Your task to perform on an android device: What's the weather today? Image 0: 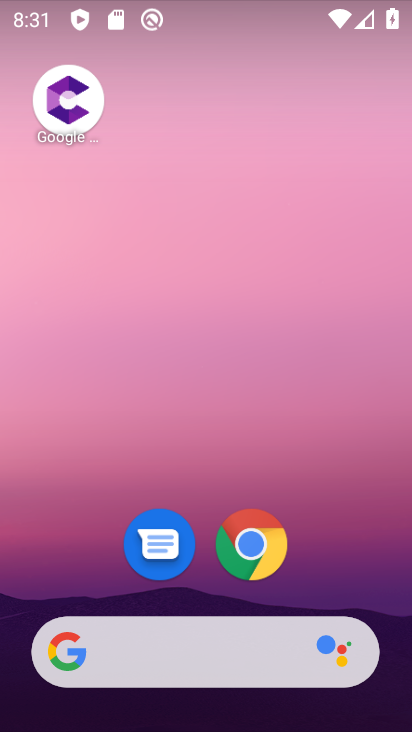
Step 0: drag from (350, 543) to (340, 239)
Your task to perform on an android device: What's the weather today? Image 1: 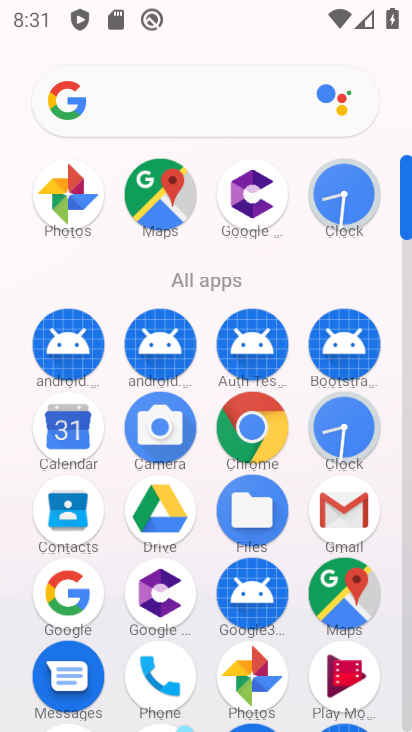
Step 1: click (244, 442)
Your task to perform on an android device: What's the weather today? Image 2: 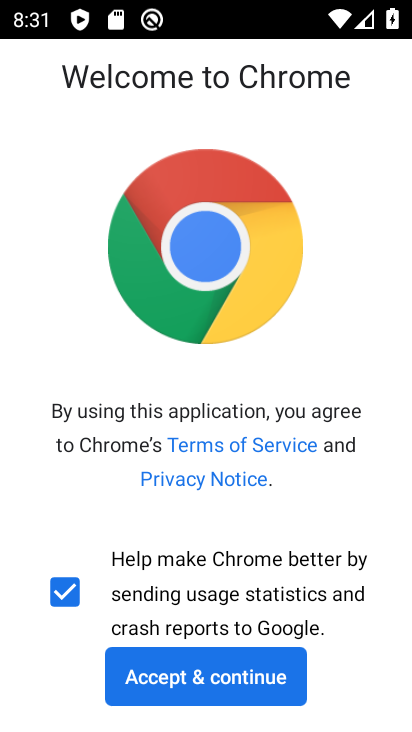
Step 2: click (253, 675)
Your task to perform on an android device: What's the weather today? Image 3: 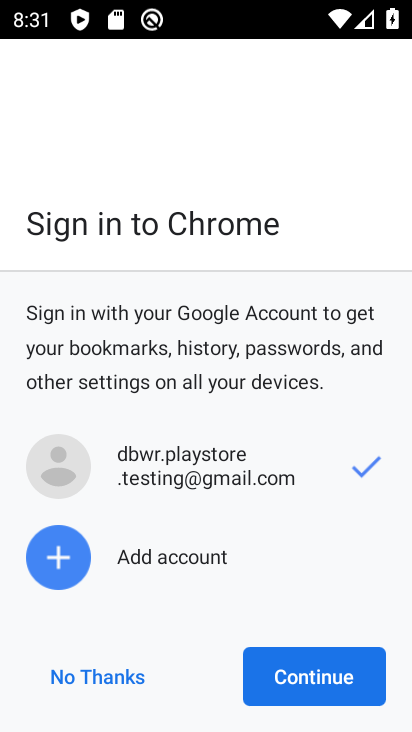
Step 3: click (252, 674)
Your task to perform on an android device: What's the weather today? Image 4: 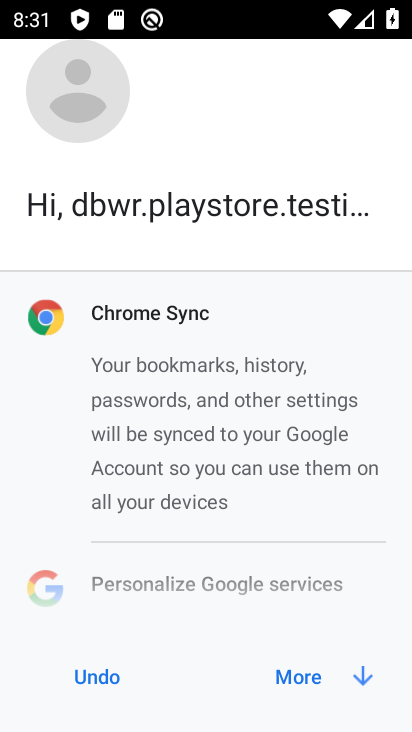
Step 4: click (279, 670)
Your task to perform on an android device: What's the weather today? Image 5: 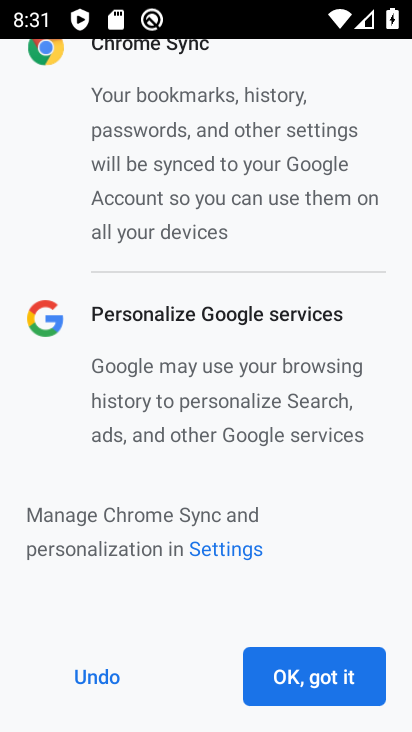
Step 5: click (276, 668)
Your task to perform on an android device: What's the weather today? Image 6: 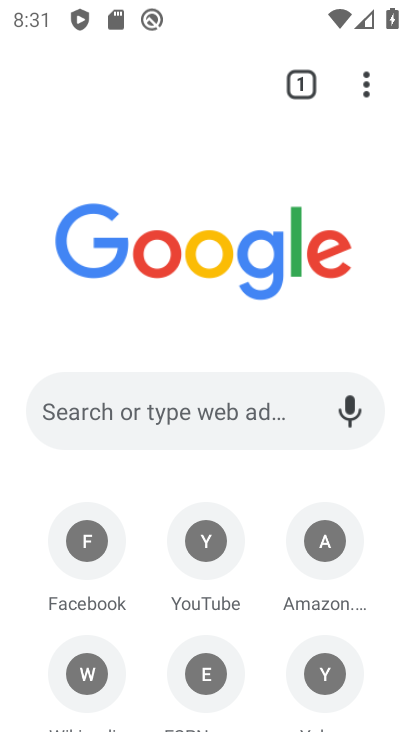
Step 6: click (241, 403)
Your task to perform on an android device: What's the weather today? Image 7: 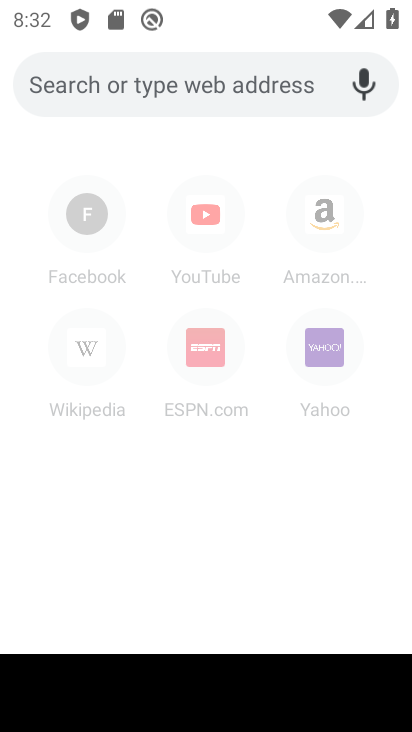
Step 7: type "what's the weather today"
Your task to perform on an android device: What's the weather today? Image 8: 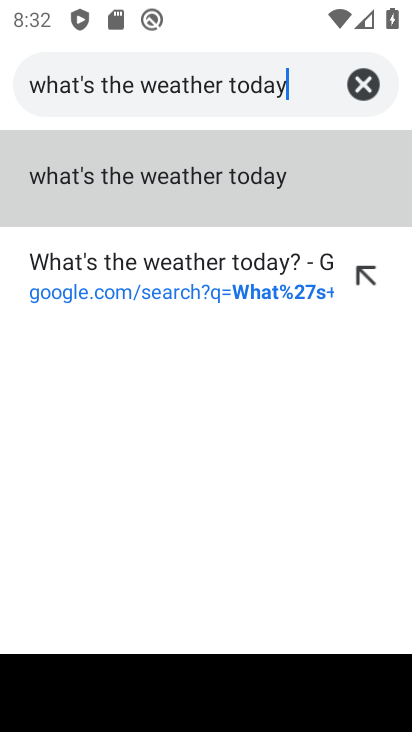
Step 8: click (171, 182)
Your task to perform on an android device: What's the weather today? Image 9: 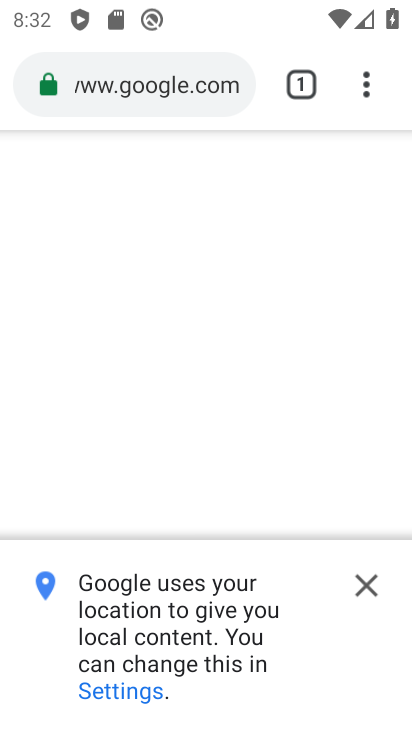
Step 9: click (378, 597)
Your task to perform on an android device: What's the weather today? Image 10: 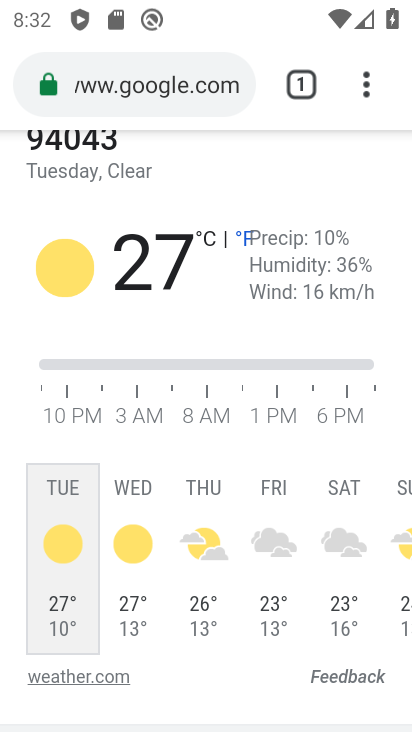
Step 10: task complete